Your task to perform on an android device: Go to CNN.com Image 0: 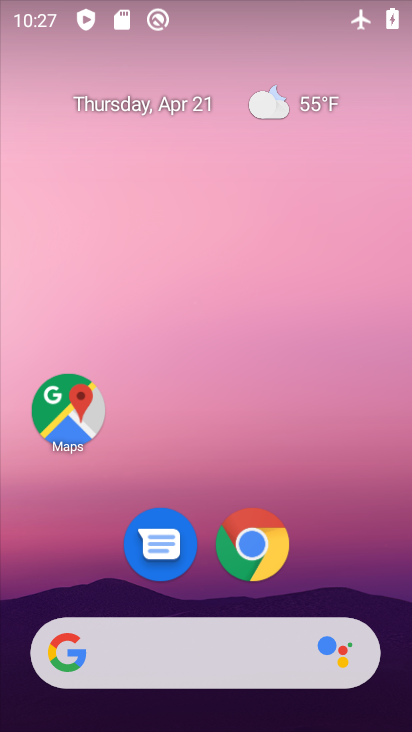
Step 0: drag from (362, 537) to (229, 0)
Your task to perform on an android device: Go to CNN.com Image 1: 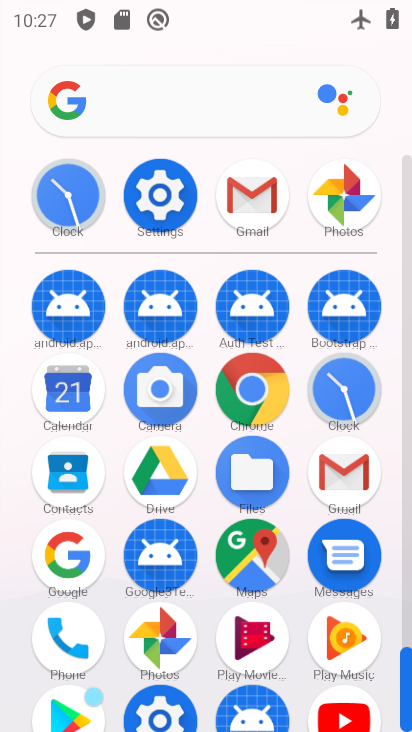
Step 1: click (256, 388)
Your task to perform on an android device: Go to CNN.com Image 2: 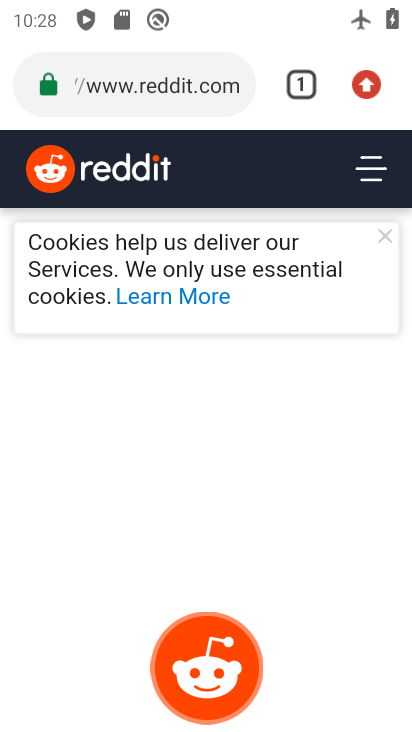
Step 2: click (179, 79)
Your task to perform on an android device: Go to CNN.com Image 3: 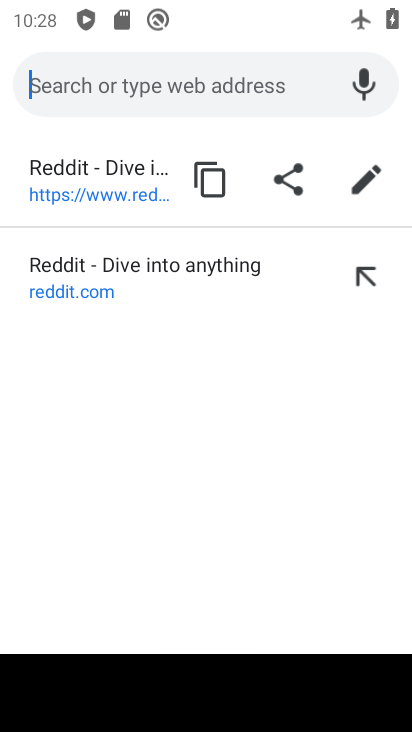
Step 3: type "CNN.com"
Your task to perform on an android device: Go to CNN.com Image 4: 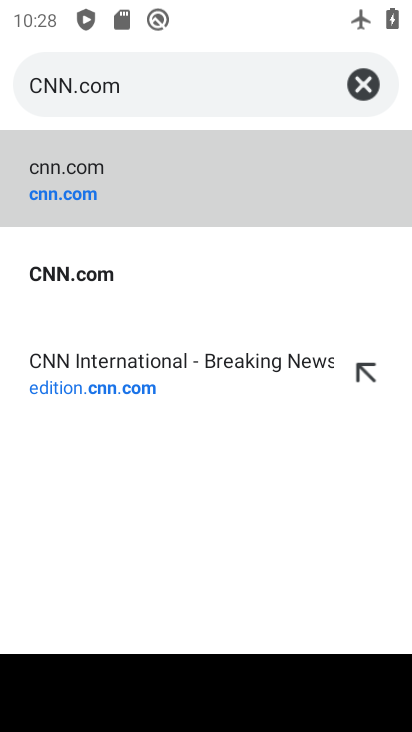
Step 4: click (188, 183)
Your task to perform on an android device: Go to CNN.com Image 5: 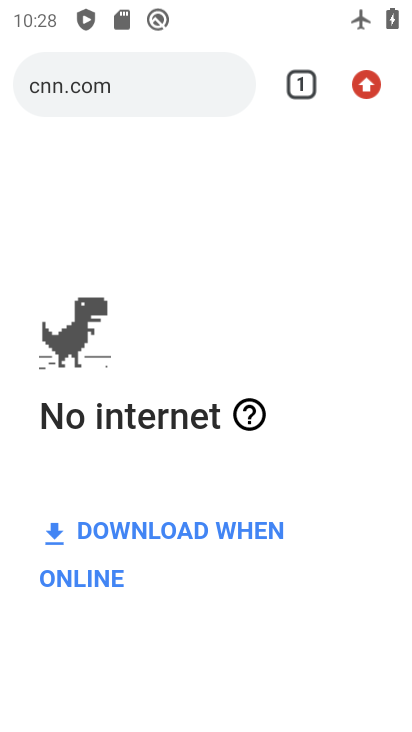
Step 5: task complete